Your task to perform on an android device: Clear the cart on target. Search for usb-c on target, select the first entry, add it to the cart, then select checkout. Image 0: 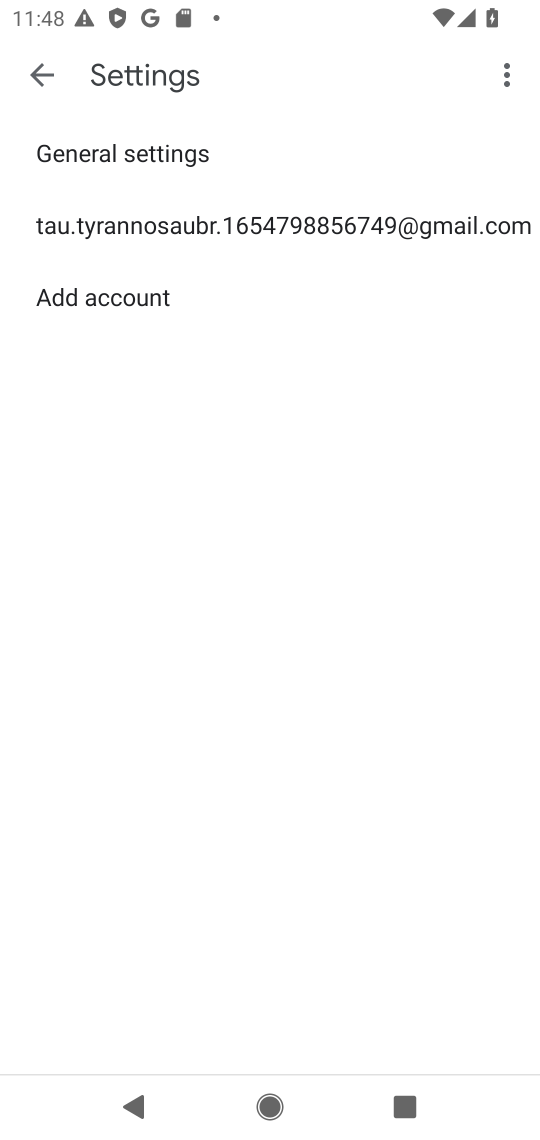
Step 0: press home button
Your task to perform on an android device: Clear the cart on target. Search for usb-c on target, select the first entry, add it to the cart, then select checkout. Image 1: 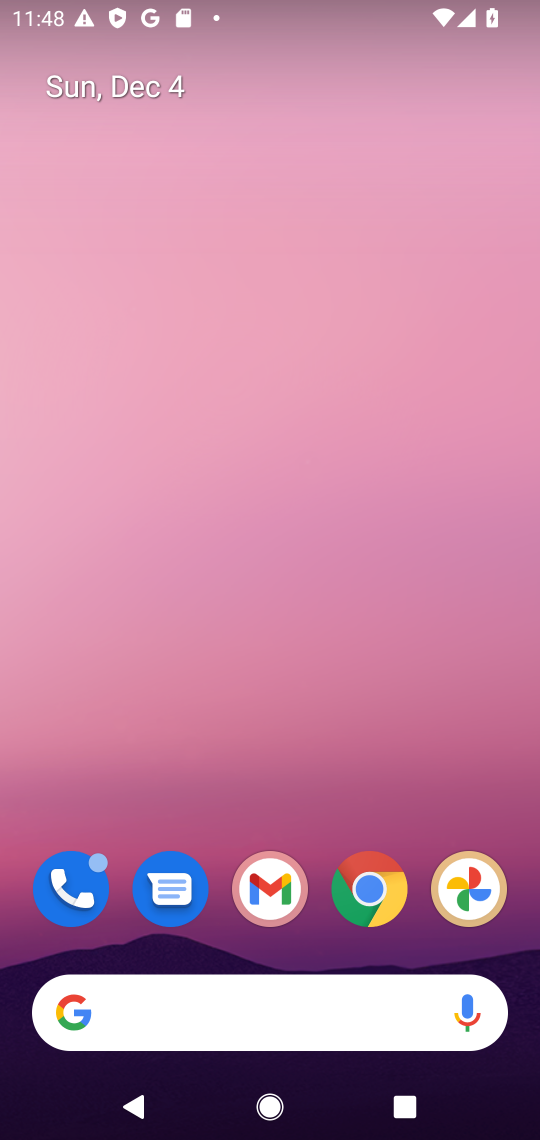
Step 1: click (368, 891)
Your task to perform on an android device: Clear the cart on target. Search for usb-c on target, select the first entry, add it to the cart, then select checkout. Image 2: 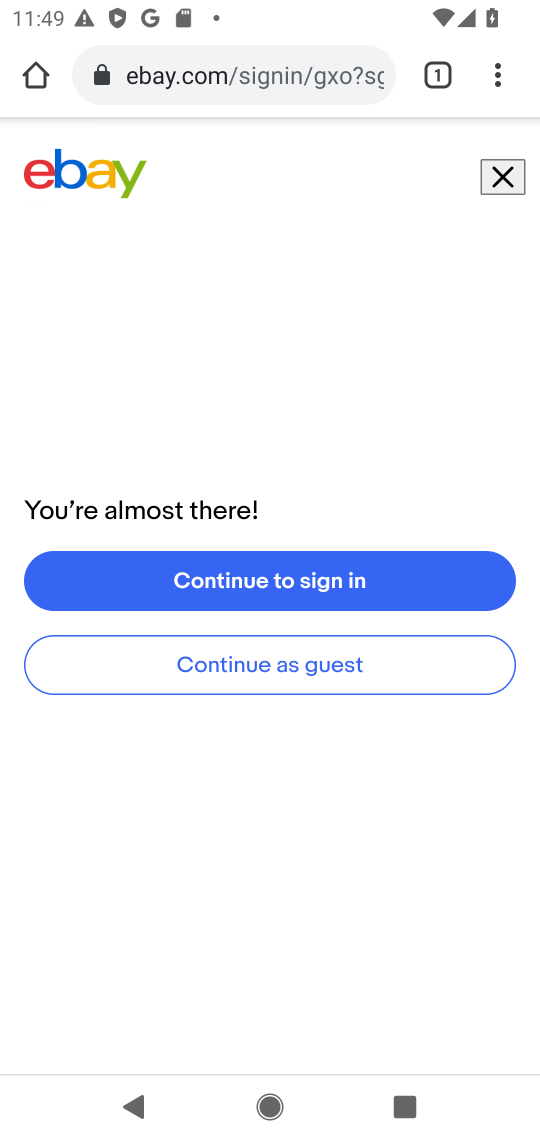
Step 2: click (241, 77)
Your task to perform on an android device: Clear the cart on target. Search for usb-c on target, select the first entry, add it to the cart, then select checkout. Image 3: 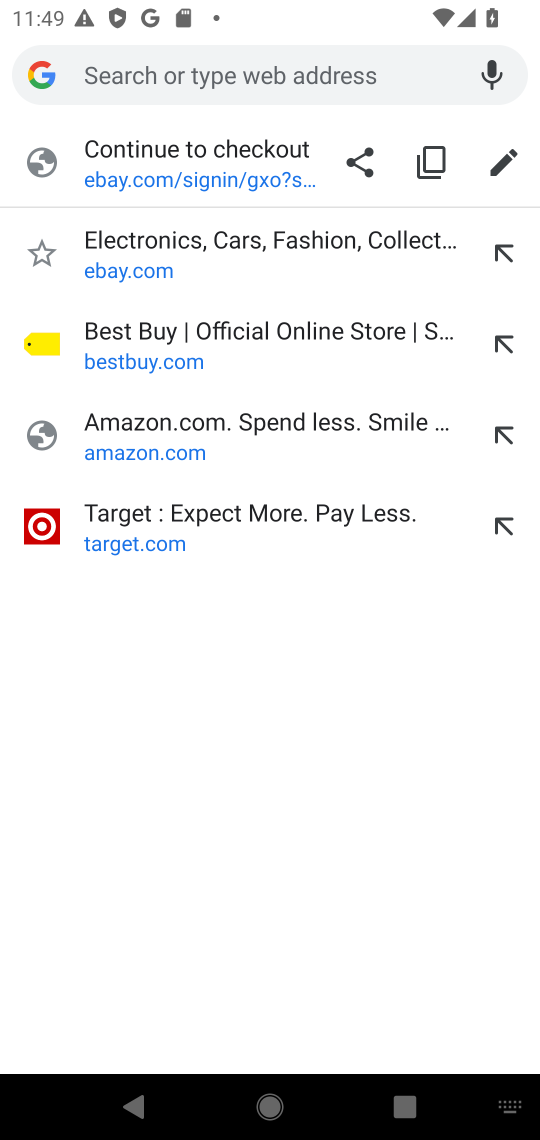
Step 3: click (232, 518)
Your task to perform on an android device: Clear the cart on target. Search for usb-c on target, select the first entry, add it to the cart, then select checkout. Image 4: 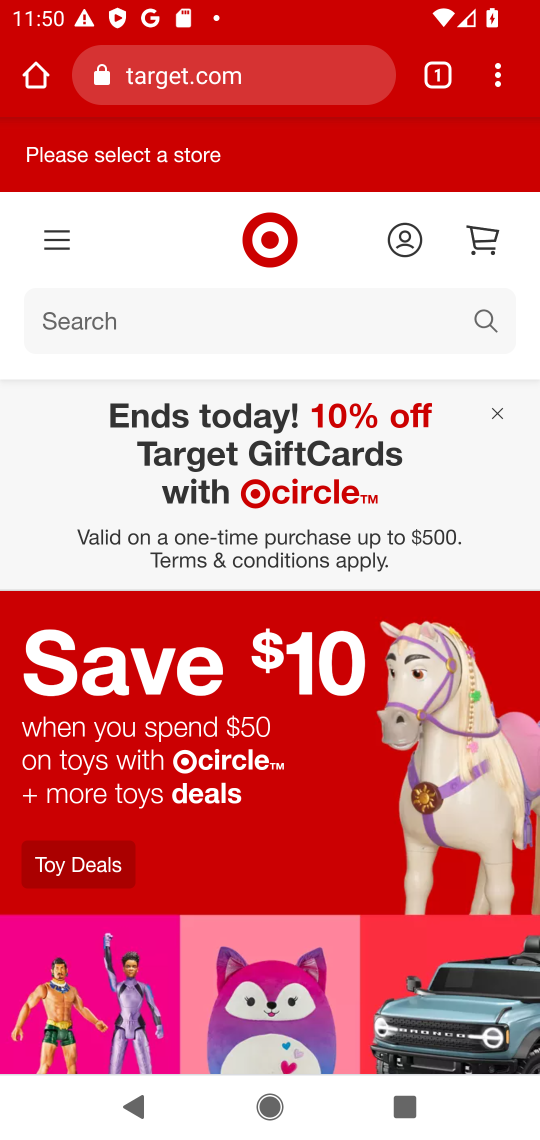
Step 4: click (475, 250)
Your task to perform on an android device: Clear the cart on target. Search for usb-c on target, select the first entry, add it to the cart, then select checkout. Image 5: 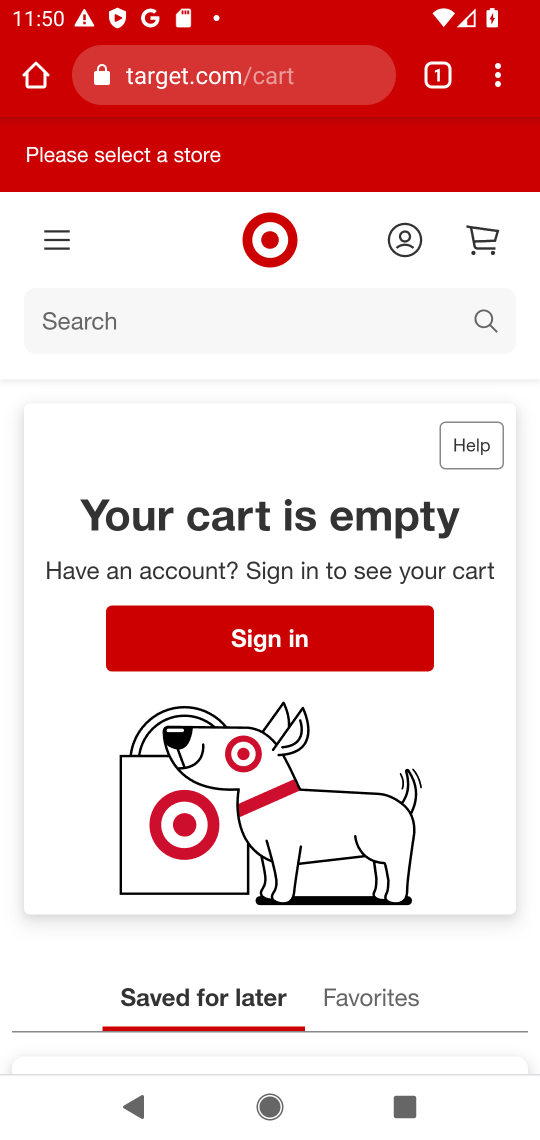
Step 5: click (480, 310)
Your task to perform on an android device: Clear the cart on target. Search for usb-c on target, select the first entry, add it to the cart, then select checkout. Image 6: 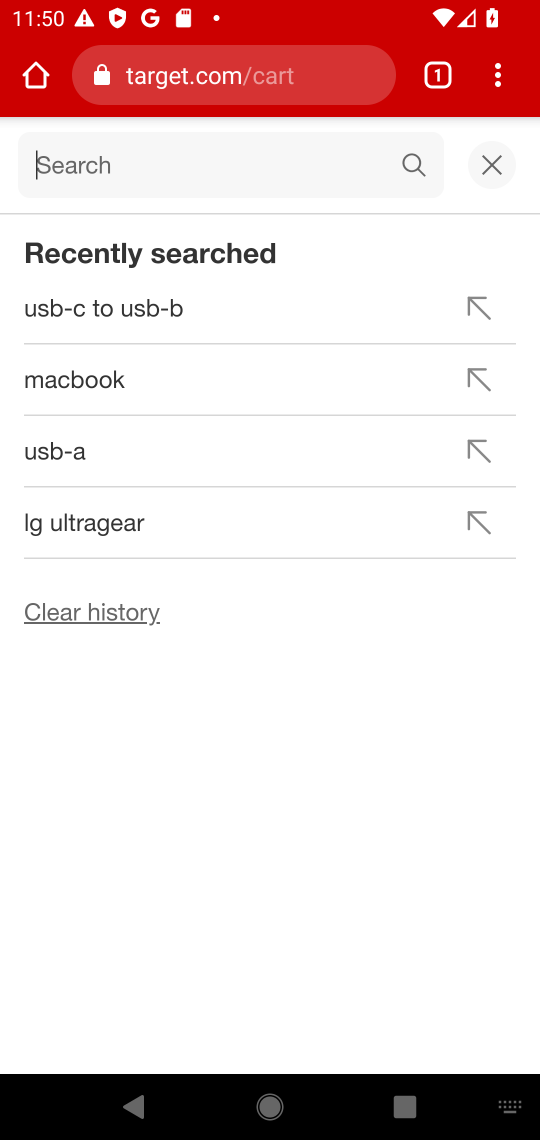
Step 6: type "usb-c"
Your task to perform on an android device: Clear the cart on target. Search for usb-c on target, select the first entry, add it to the cart, then select checkout. Image 7: 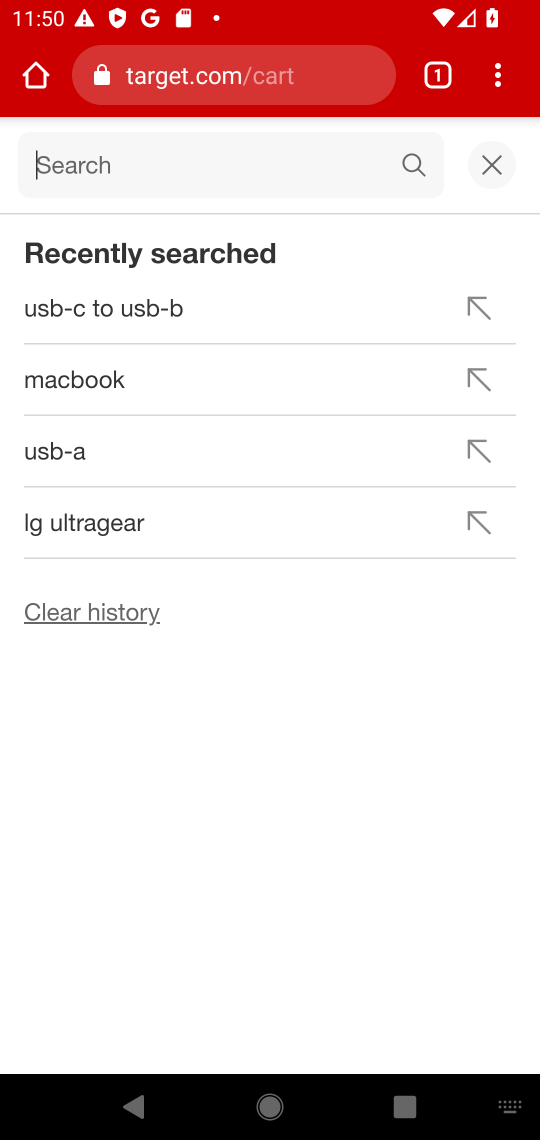
Step 7: press enter
Your task to perform on an android device: Clear the cart on target. Search for usb-c on target, select the first entry, add it to the cart, then select checkout. Image 8: 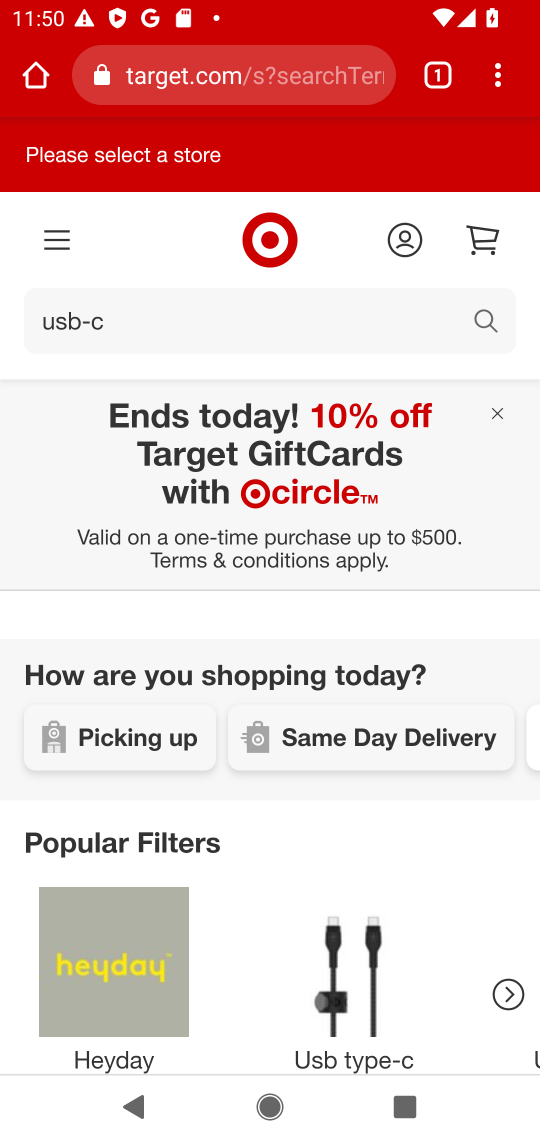
Step 8: drag from (436, 814) to (430, 353)
Your task to perform on an android device: Clear the cart on target. Search for usb-c on target, select the first entry, add it to the cart, then select checkout. Image 9: 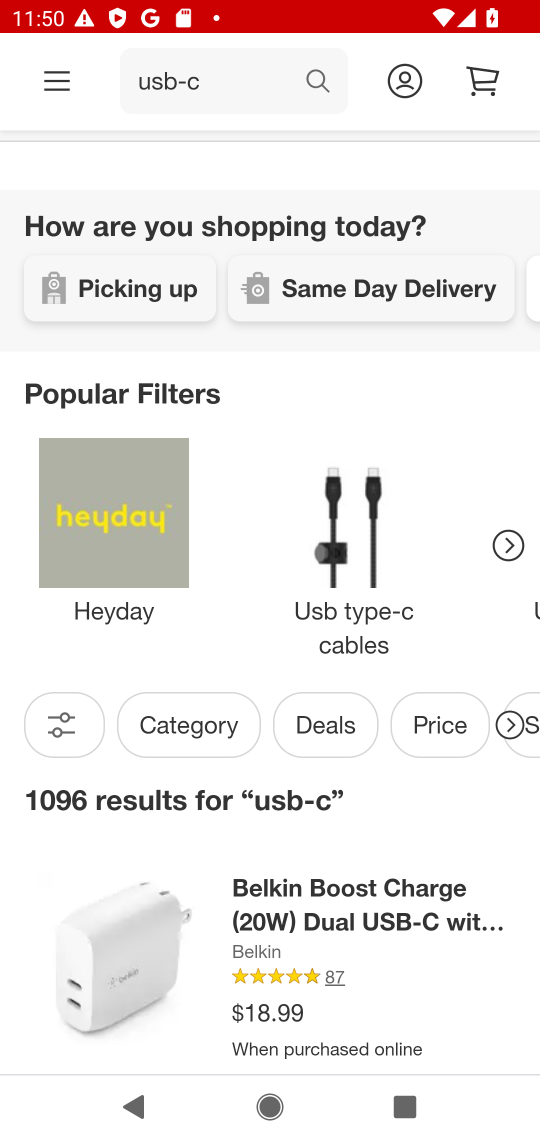
Step 9: drag from (460, 919) to (497, 444)
Your task to perform on an android device: Clear the cart on target. Search for usb-c on target, select the first entry, add it to the cart, then select checkout. Image 10: 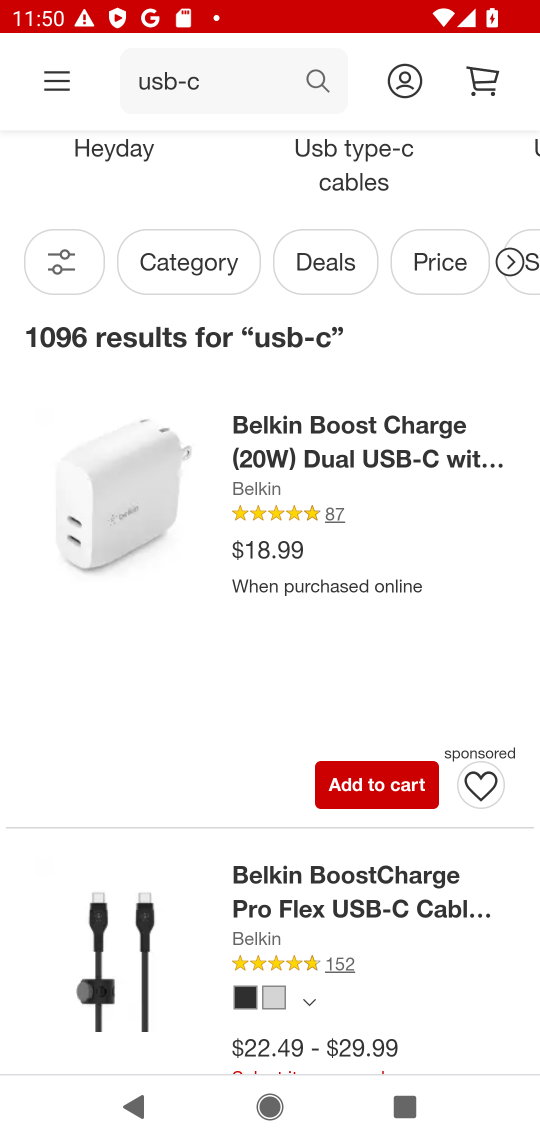
Step 10: click (98, 930)
Your task to perform on an android device: Clear the cart on target. Search for usb-c on target, select the first entry, add it to the cart, then select checkout. Image 11: 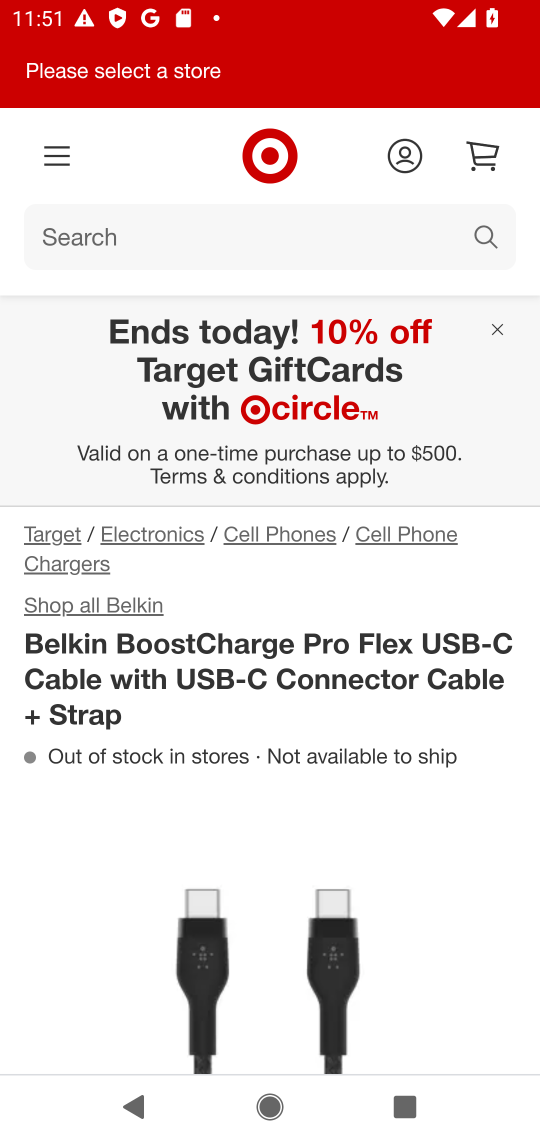
Step 11: drag from (434, 835) to (306, 230)
Your task to perform on an android device: Clear the cart on target. Search for usb-c on target, select the first entry, add it to the cart, then select checkout. Image 12: 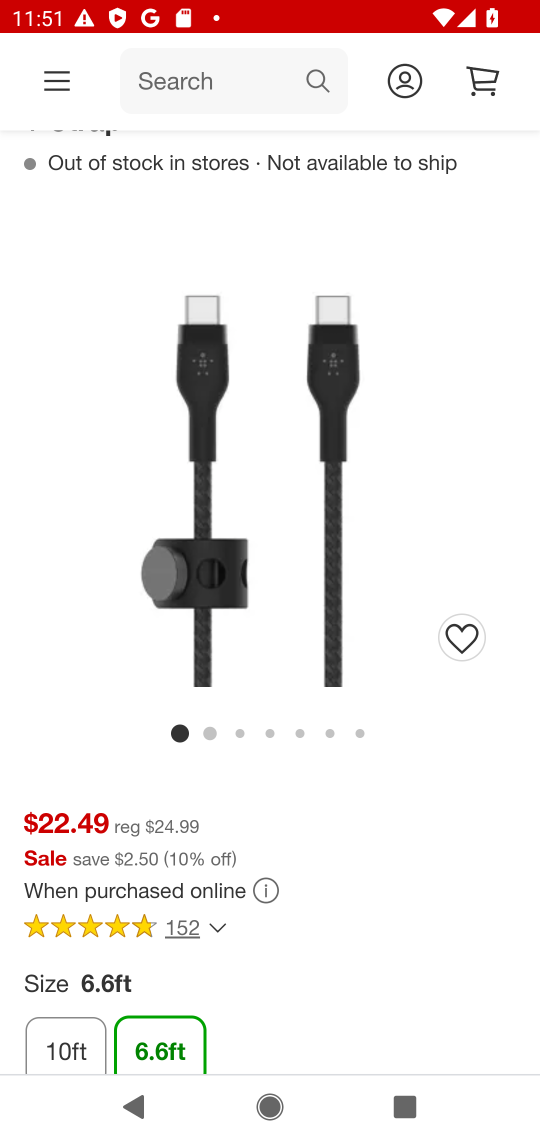
Step 12: drag from (373, 848) to (356, 370)
Your task to perform on an android device: Clear the cart on target. Search for usb-c on target, select the first entry, add it to the cart, then select checkout. Image 13: 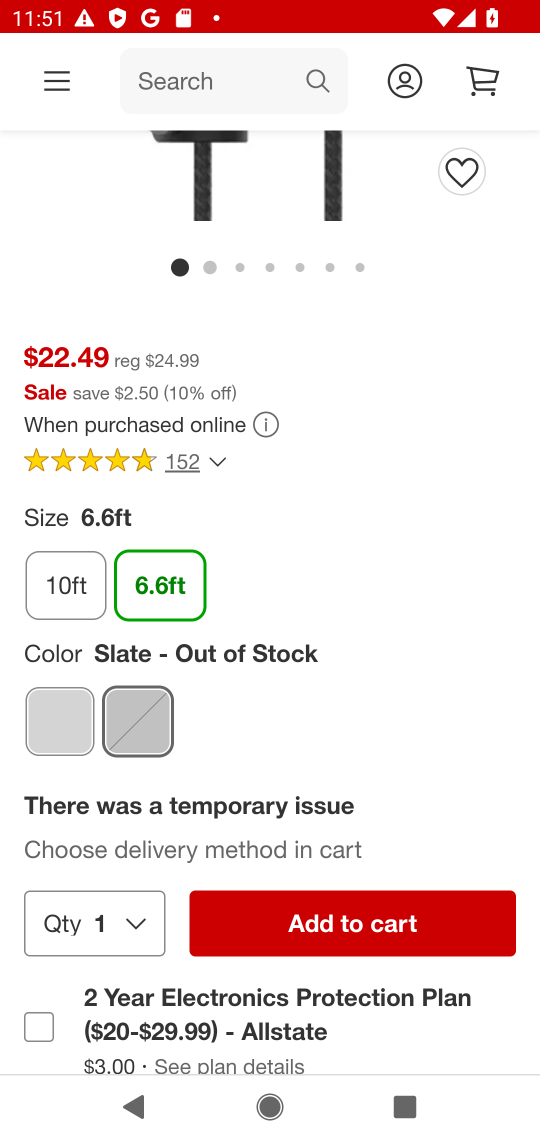
Step 13: click (410, 930)
Your task to perform on an android device: Clear the cart on target. Search for usb-c on target, select the first entry, add it to the cart, then select checkout. Image 14: 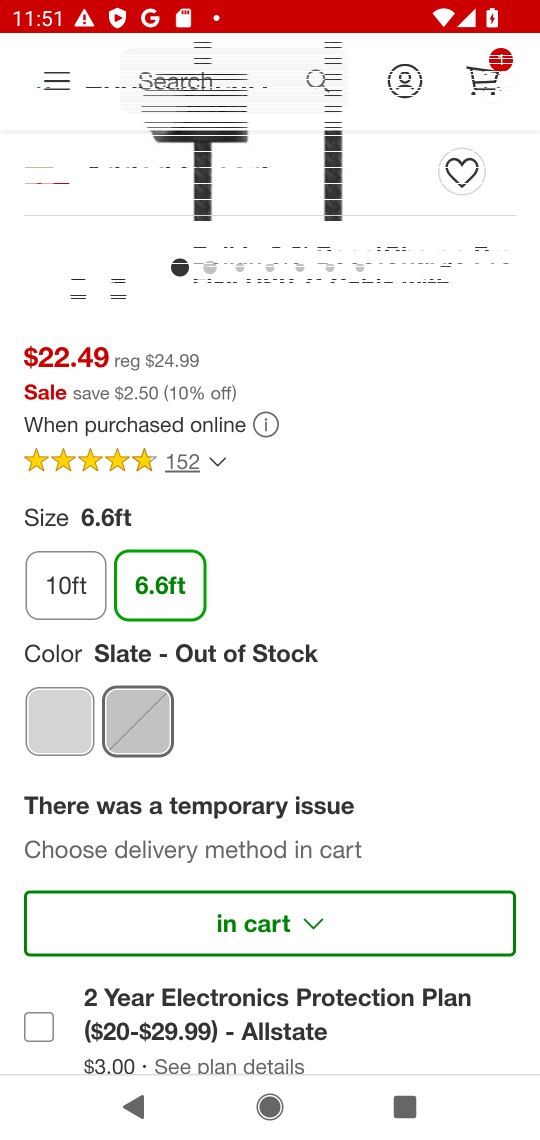
Step 14: drag from (433, 522) to (483, 1075)
Your task to perform on an android device: Clear the cart on target. Search for usb-c on target, select the first entry, add it to the cart, then select checkout. Image 15: 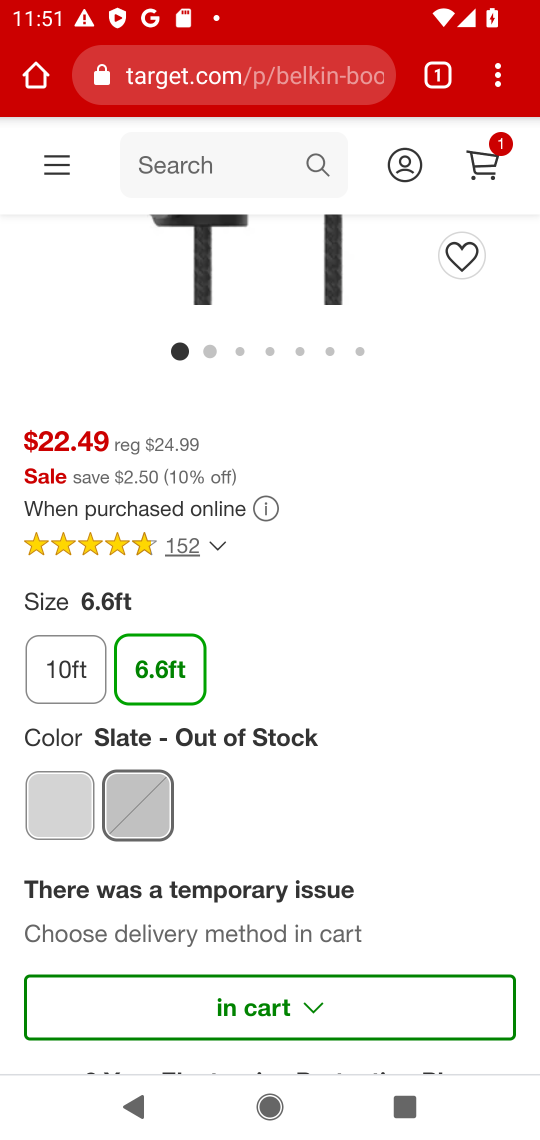
Step 15: click (480, 161)
Your task to perform on an android device: Clear the cart on target. Search for usb-c on target, select the first entry, add it to the cart, then select checkout. Image 16: 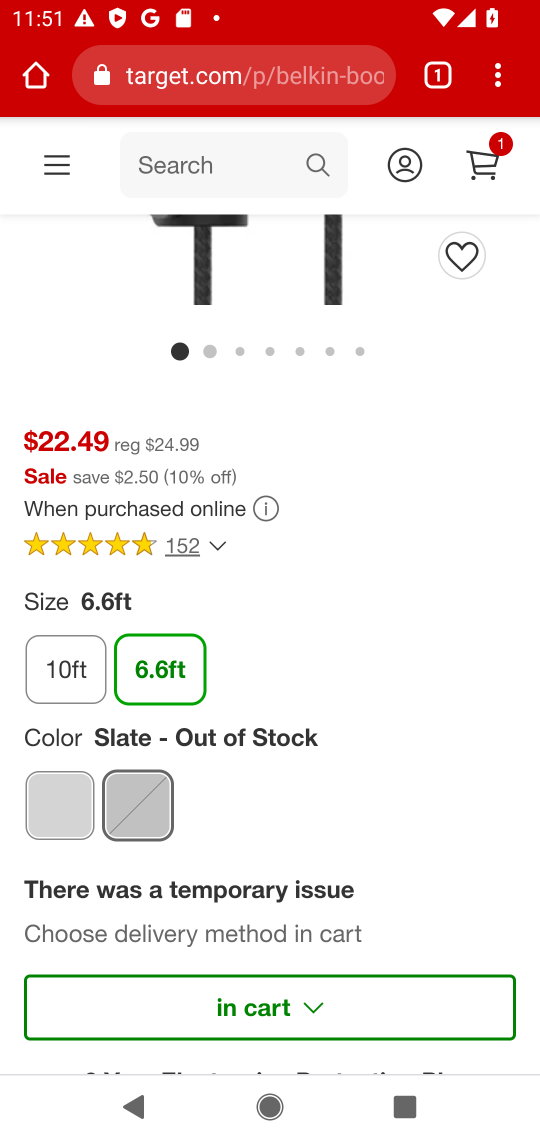
Step 16: click (482, 159)
Your task to perform on an android device: Clear the cart on target. Search for usb-c on target, select the first entry, add it to the cart, then select checkout. Image 17: 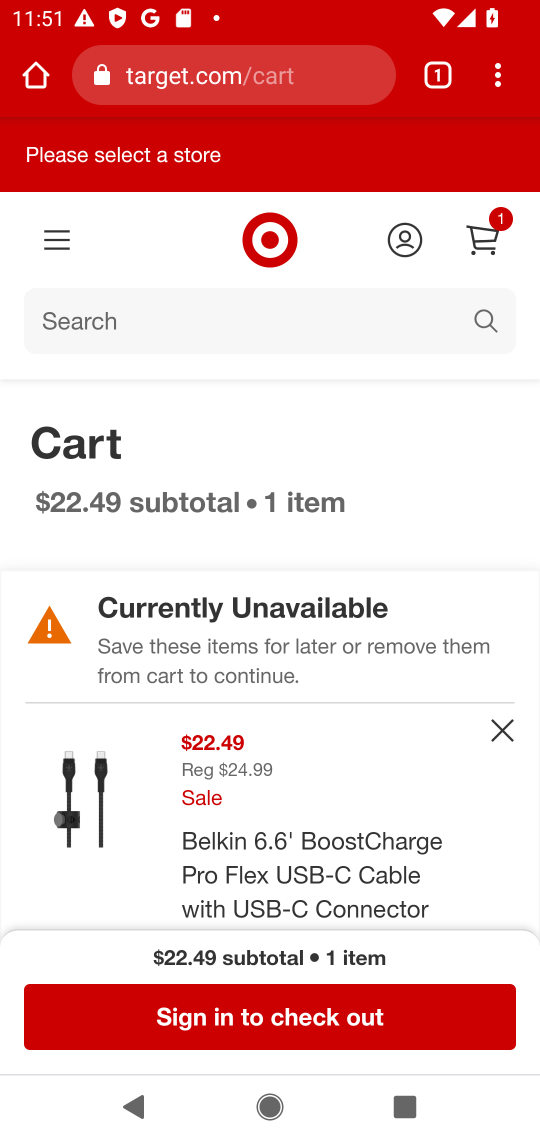
Step 17: click (325, 1025)
Your task to perform on an android device: Clear the cart on target. Search for usb-c on target, select the first entry, add it to the cart, then select checkout. Image 18: 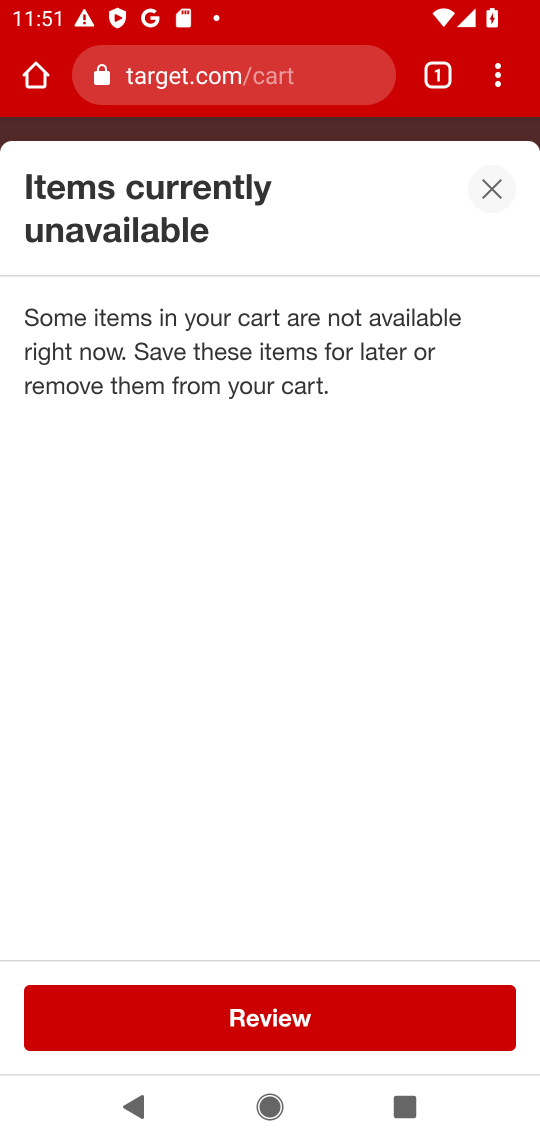
Step 18: press back button
Your task to perform on an android device: Clear the cart on target. Search for usb-c on target, select the first entry, add it to the cart, then select checkout. Image 19: 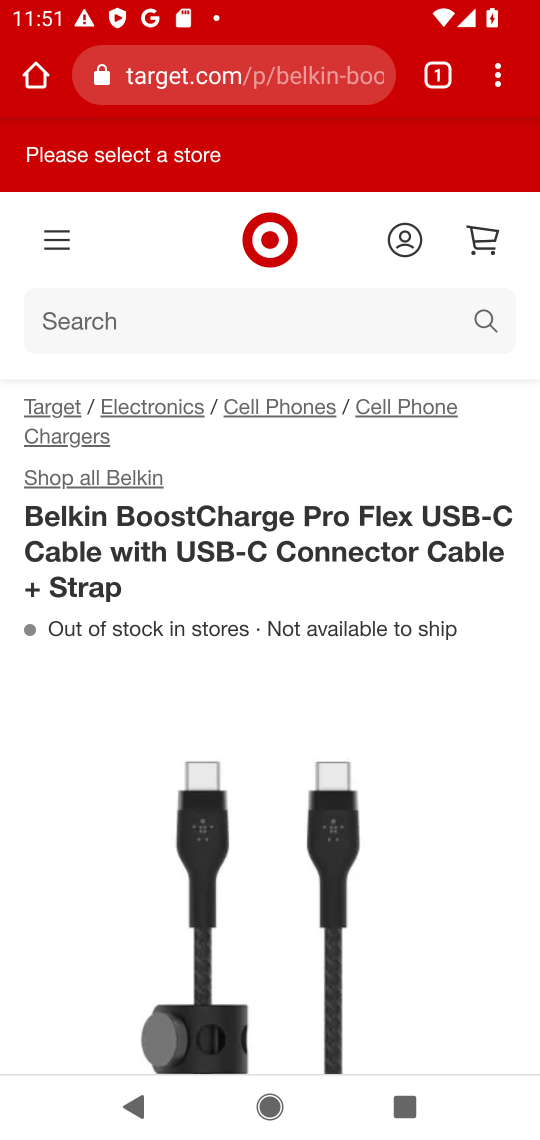
Step 19: press back button
Your task to perform on an android device: Clear the cart on target. Search for usb-c on target, select the first entry, add it to the cart, then select checkout. Image 20: 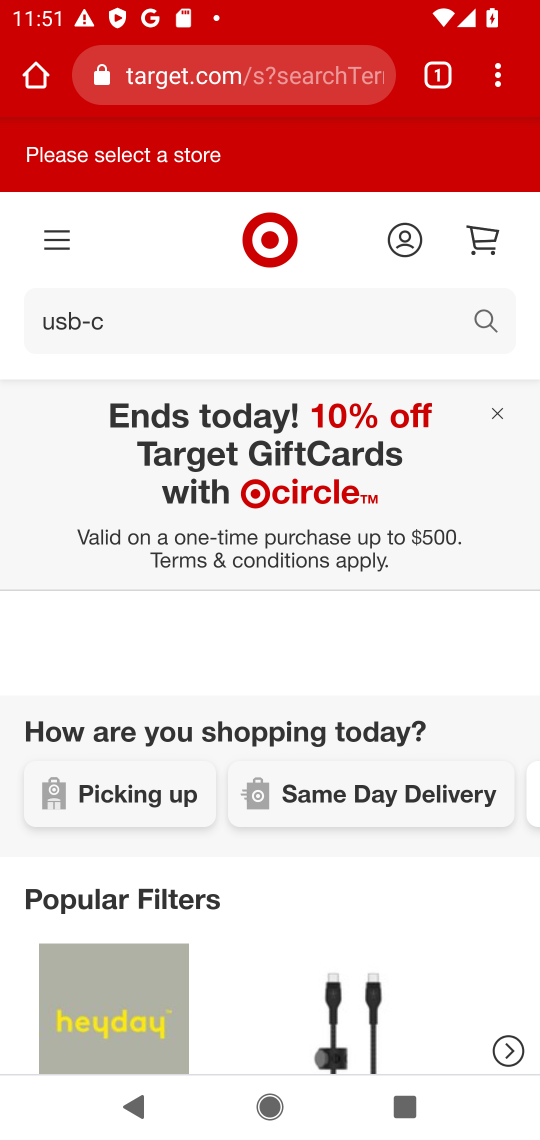
Step 20: drag from (440, 701) to (438, 221)
Your task to perform on an android device: Clear the cart on target. Search for usb-c on target, select the first entry, add it to the cart, then select checkout. Image 21: 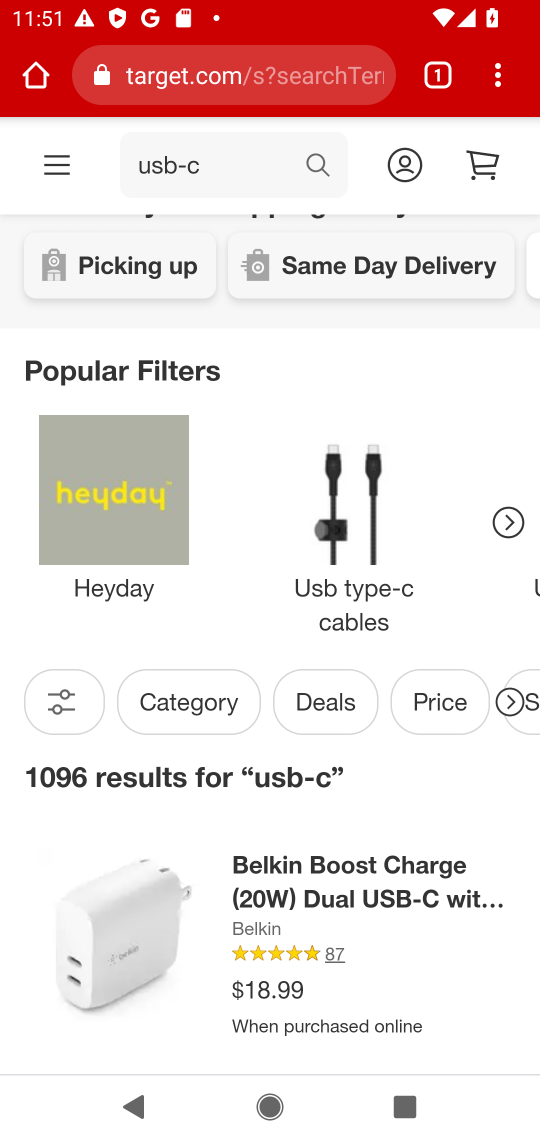
Step 21: drag from (440, 897) to (451, 234)
Your task to perform on an android device: Clear the cart on target. Search for usb-c on target, select the first entry, add it to the cart, then select checkout. Image 22: 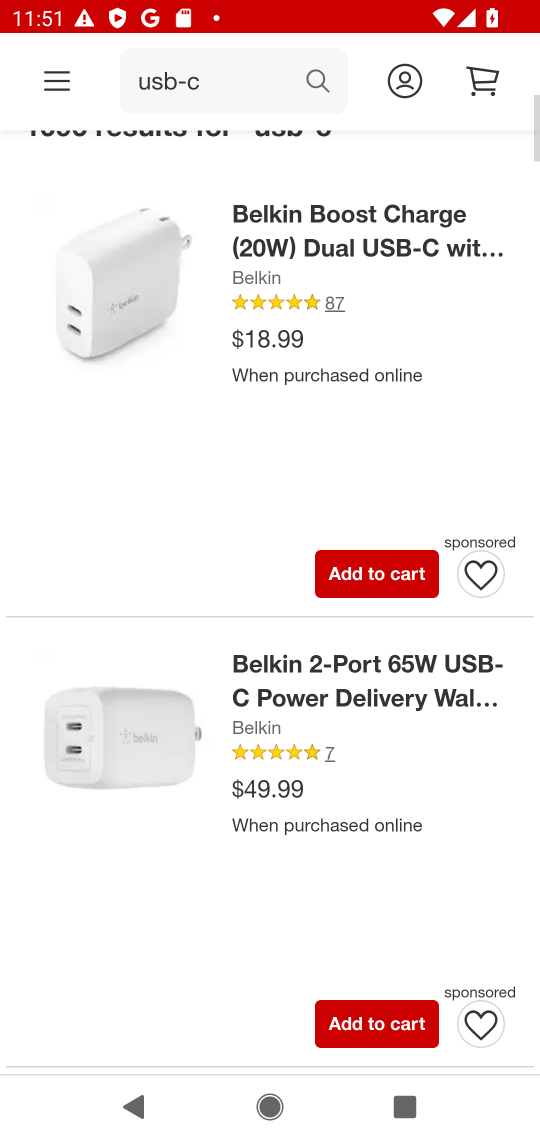
Step 22: drag from (501, 778) to (474, 289)
Your task to perform on an android device: Clear the cart on target. Search for usb-c on target, select the first entry, add it to the cart, then select checkout. Image 23: 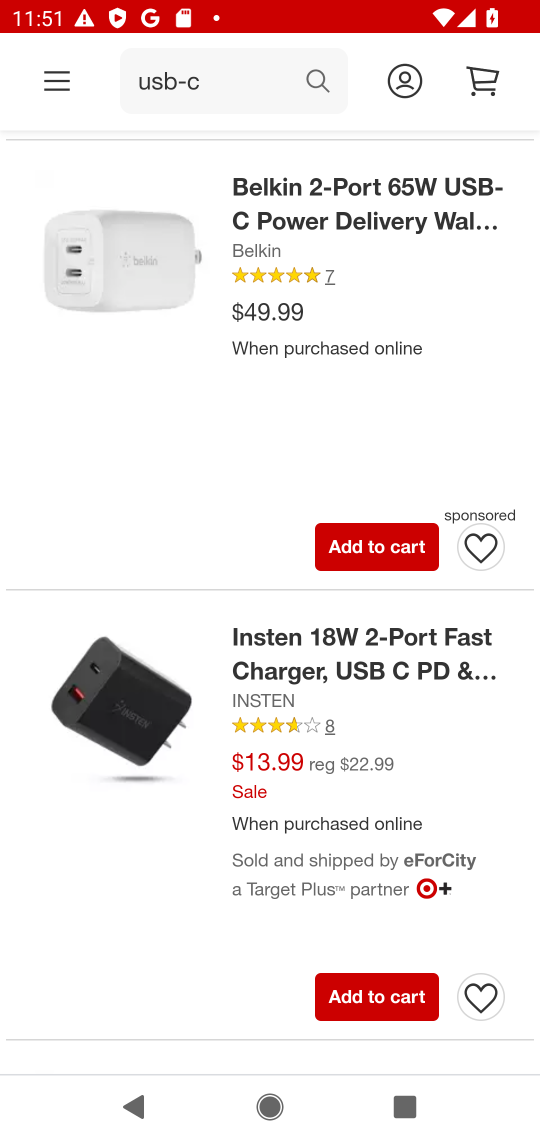
Step 23: drag from (405, 679) to (459, 296)
Your task to perform on an android device: Clear the cart on target. Search for usb-c on target, select the first entry, add it to the cart, then select checkout. Image 24: 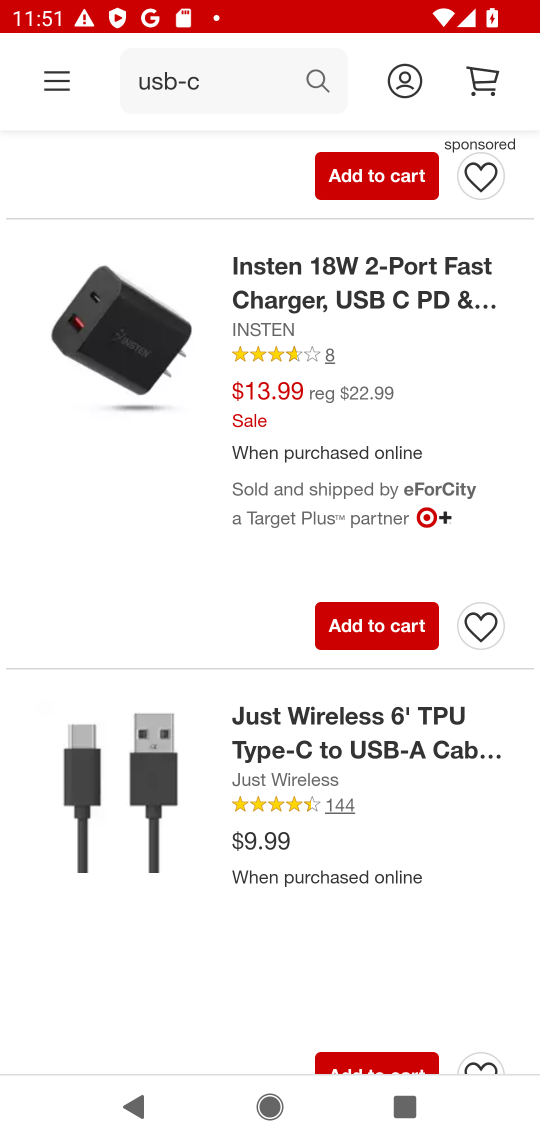
Step 24: drag from (453, 848) to (369, 198)
Your task to perform on an android device: Clear the cart on target. Search for usb-c on target, select the first entry, add it to the cart, then select checkout. Image 25: 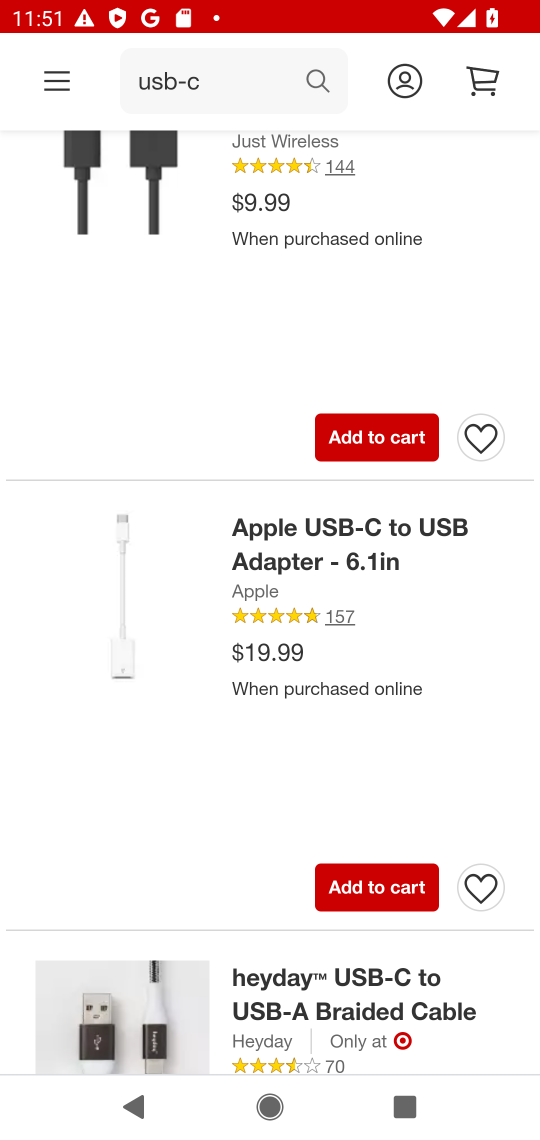
Step 25: click (128, 578)
Your task to perform on an android device: Clear the cart on target. Search for usb-c on target, select the first entry, add it to the cart, then select checkout. Image 26: 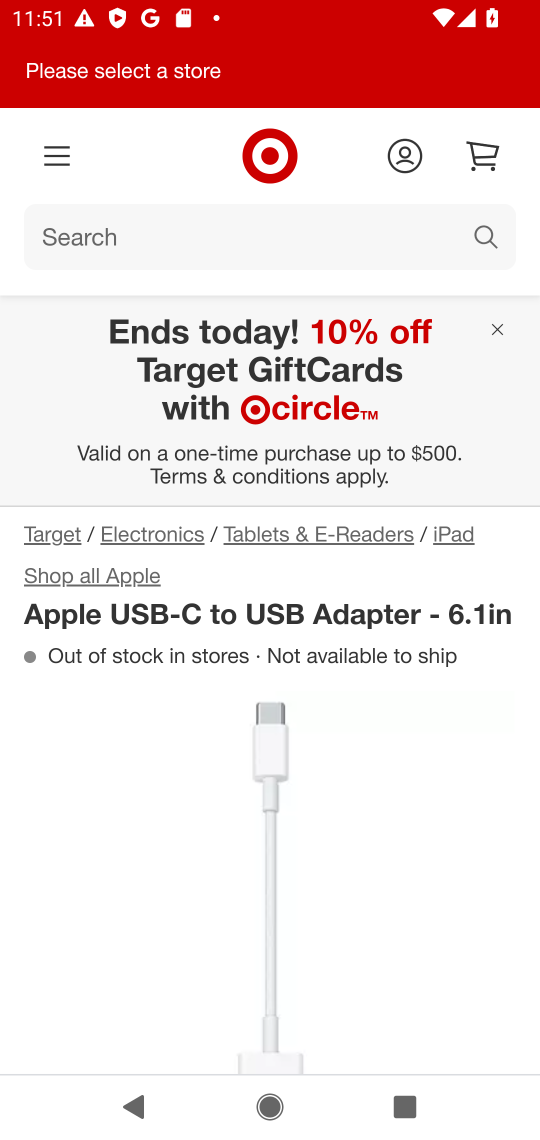
Step 26: drag from (479, 776) to (528, 830)
Your task to perform on an android device: Clear the cart on target. Search for usb-c on target, select the first entry, add it to the cart, then select checkout. Image 27: 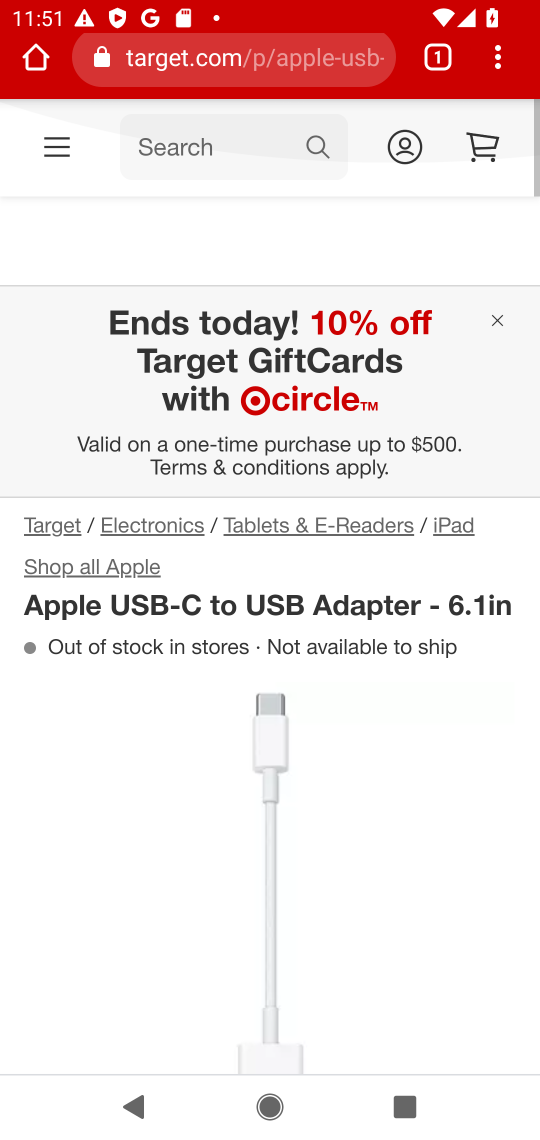
Step 27: drag from (474, 920) to (477, 329)
Your task to perform on an android device: Clear the cart on target. Search for usb-c on target, select the first entry, add it to the cart, then select checkout. Image 28: 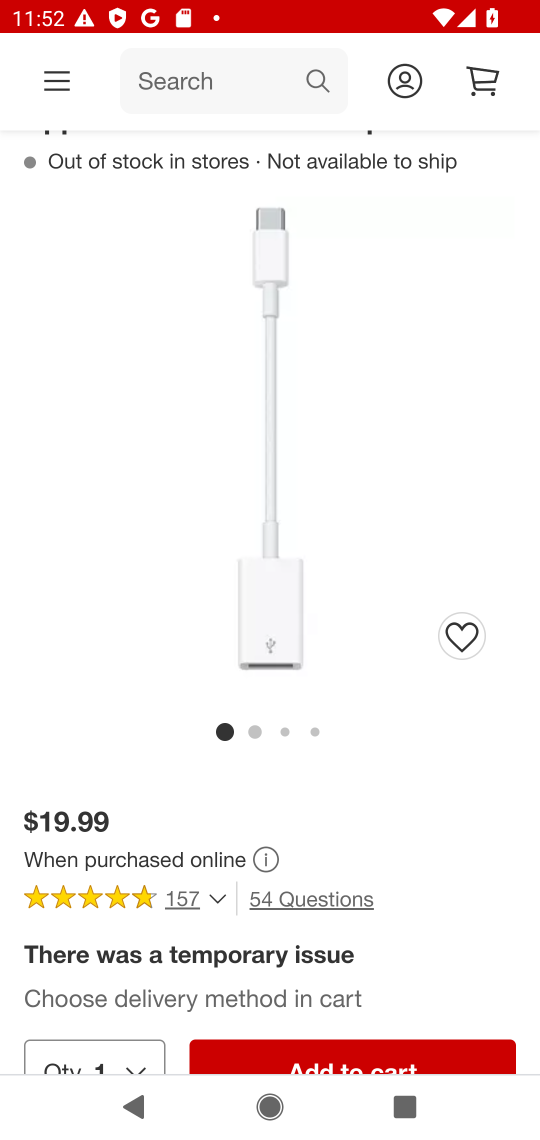
Step 28: drag from (454, 780) to (469, 506)
Your task to perform on an android device: Clear the cart on target. Search for usb-c on target, select the first entry, add it to the cart, then select checkout. Image 29: 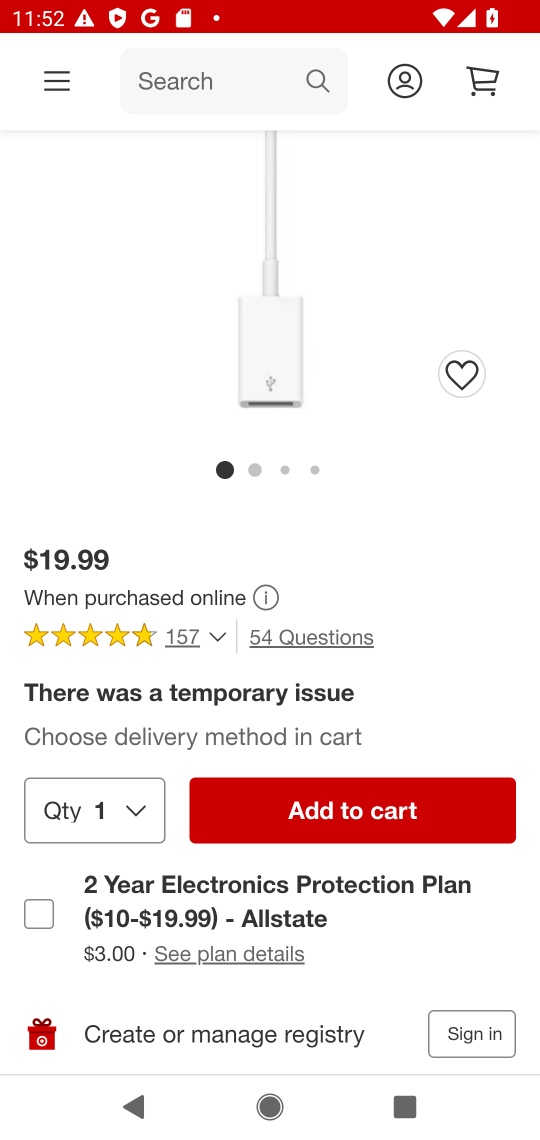
Step 29: click (373, 815)
Your task to perform on an android device: Clear the cart on target. Search for usb-c on target, select the first entry, add it to the cart, then select checkout. Image 30: 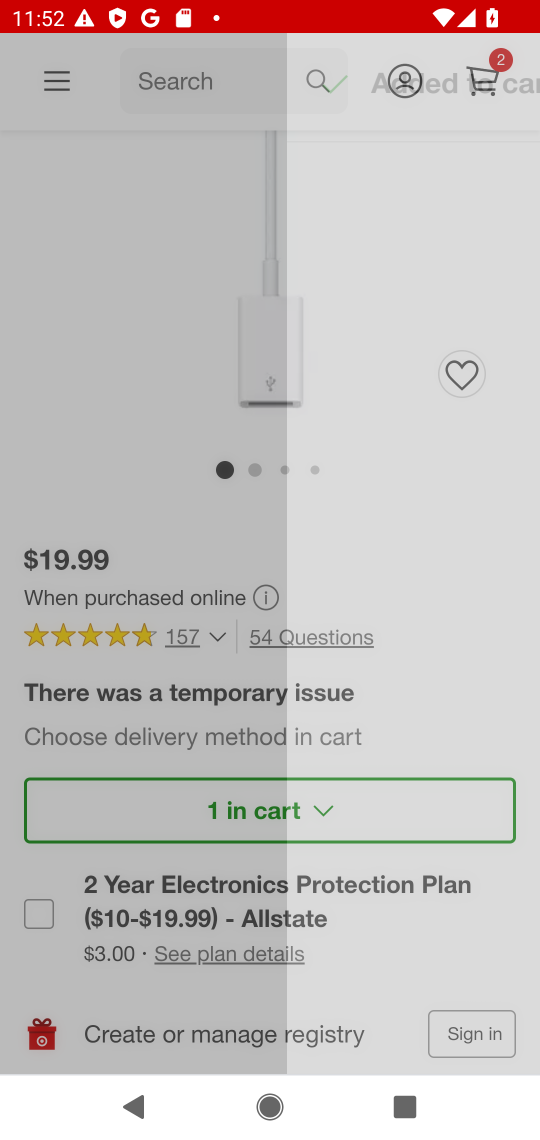
Step 30: click (478, 75)
Your task to perform on an android device: Clear the cart on target. Search for usb-c on target, select the first entry, add it to the cart, then select checkout. Image 31: 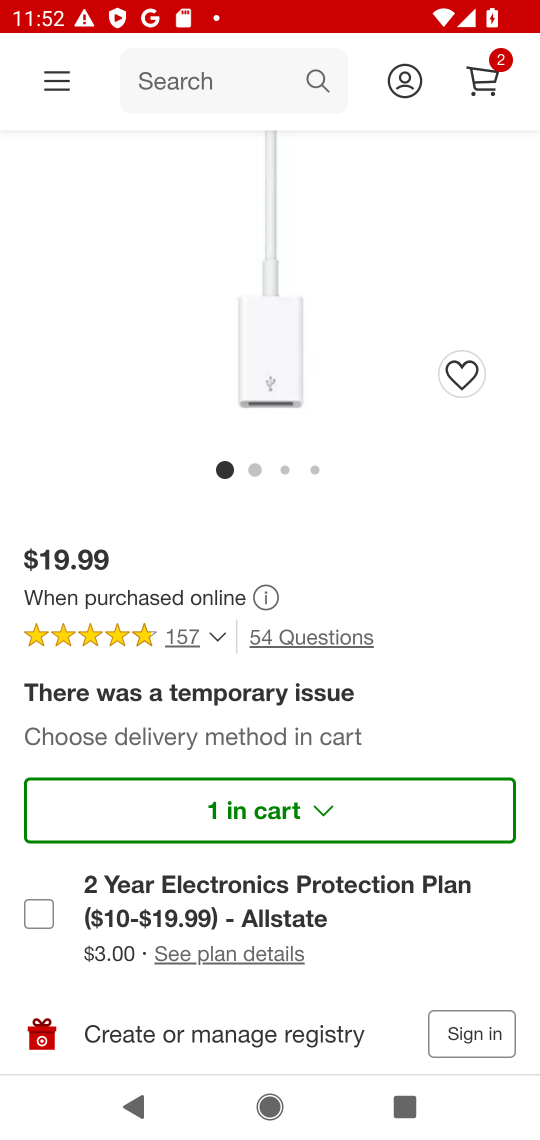
Step 31: drag from (415, 702) to (444, 173)
Your task to perform on an android device: Clear the cart on target. Search for usb-c on target, select the first entry, add it to the cart, then select checkout. Image 32: 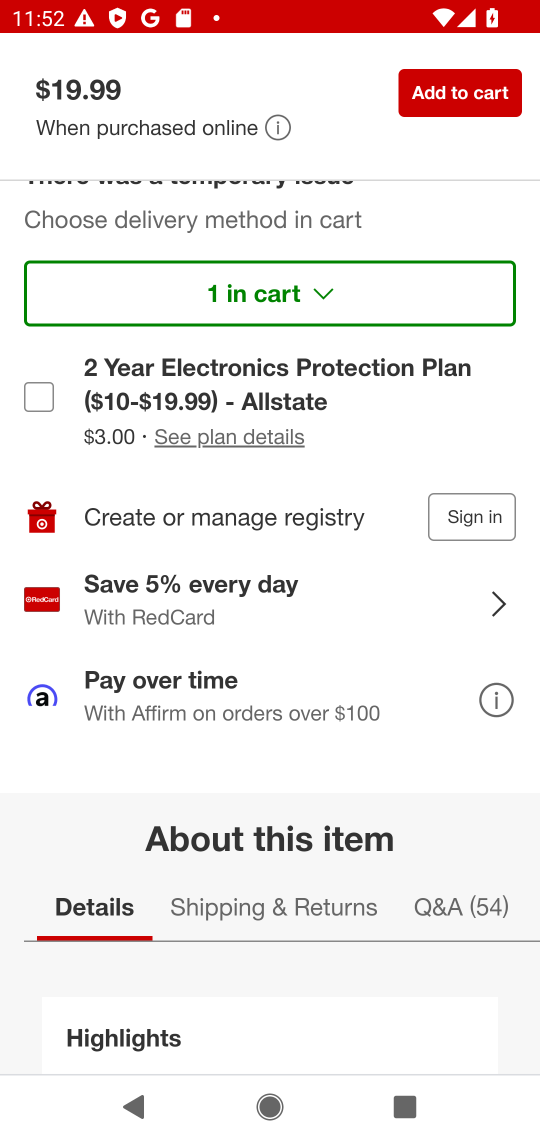
Step 32: drag from (450, 781) to (369, 1040)
Your task to perform on an android device: Clear the cart on target. Search for usb-c on target, select the first entry, add it to the cart, then select checkout. Image 33: 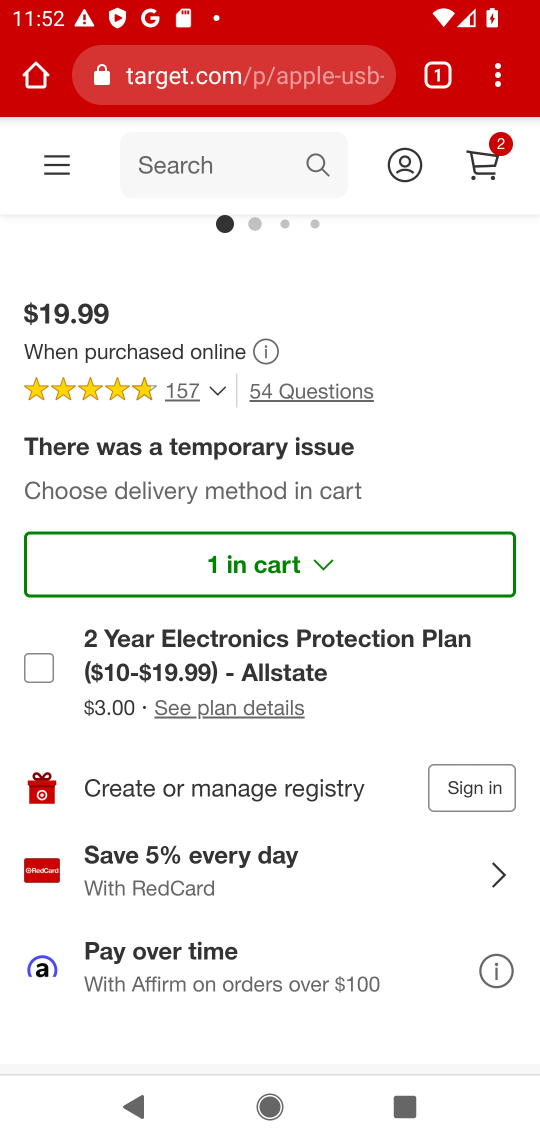
Step 33: click (485, 162)
Your task to perform on an android device: Clear the cart on target. Search for usb-c on target, select the first entry, add it to the cart, then select checkout. Image 34: 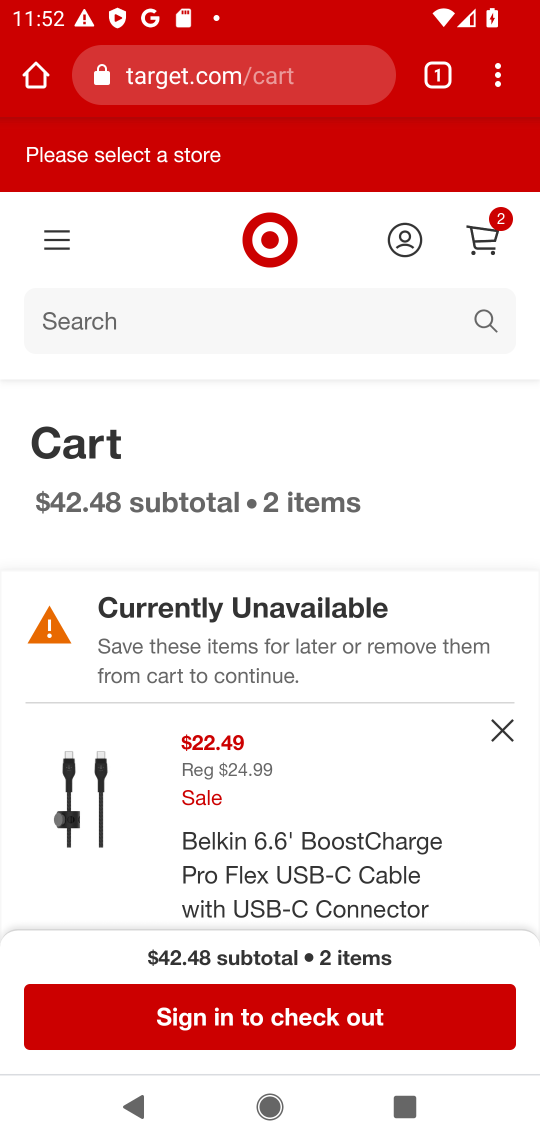
Step 34: drag from (454, 595) to (479, 213)
Your task to perform on an android device: Clear the cart on target. Search for usb-c on target, select the first entry, add it to the cart, then select checkout. Image 35: 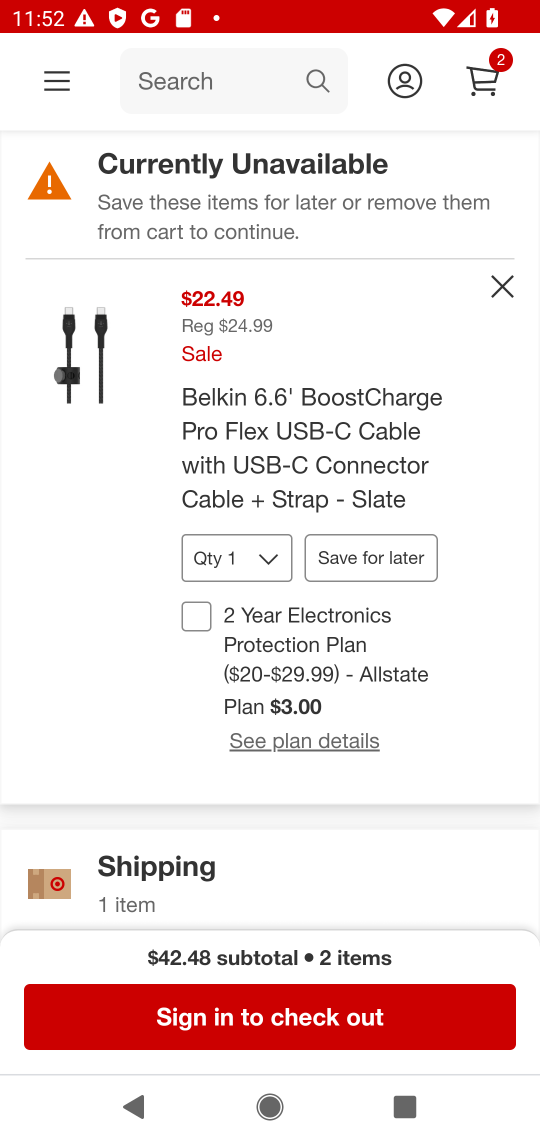
Step 35: drag from (498, 450) to (463, 202)
Your task to perform on an android device: Clear the cart on target. Search for usb-c on target, select the first entry, add it to the cart, then select checkout. Image 36: 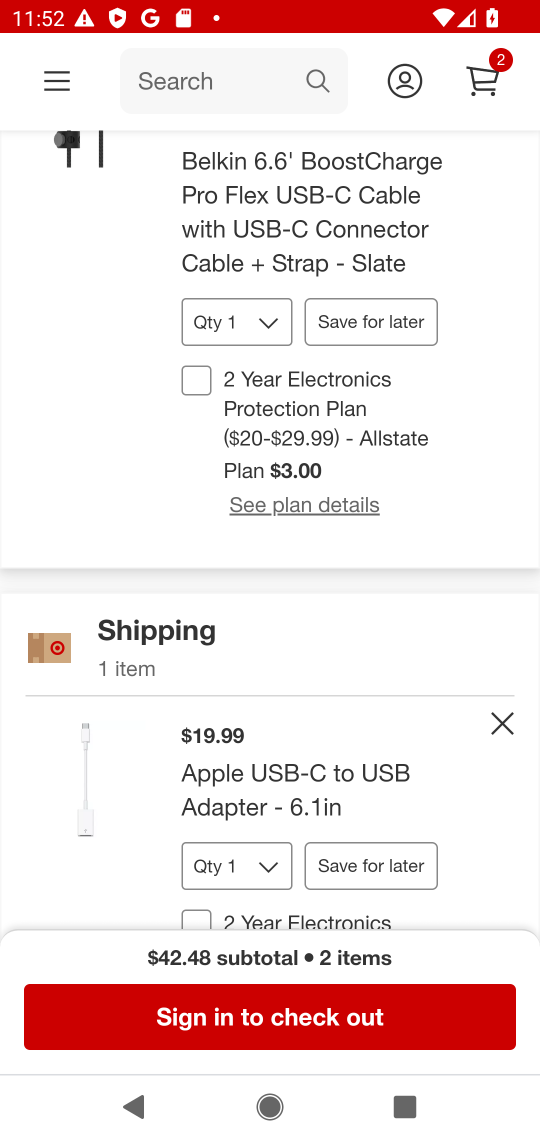
Step 36: click (477, 458)
Your task to perform on an android device: Clear the cart on target. Search for usb-c on target, select the first entry, add it to the cart, then select checkout. Image 37: 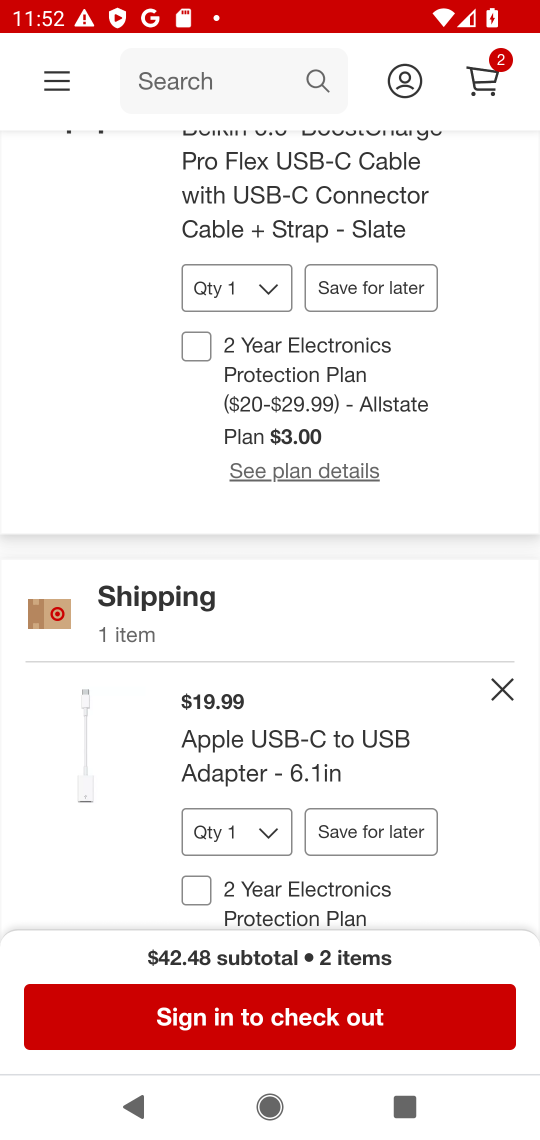
Step 37: click (364, 1012)
Your task to perform on an android device: Clear the cart on target. Search for usb-c on target, select the first entry, add it to the cart, then select checkout. Image 38: 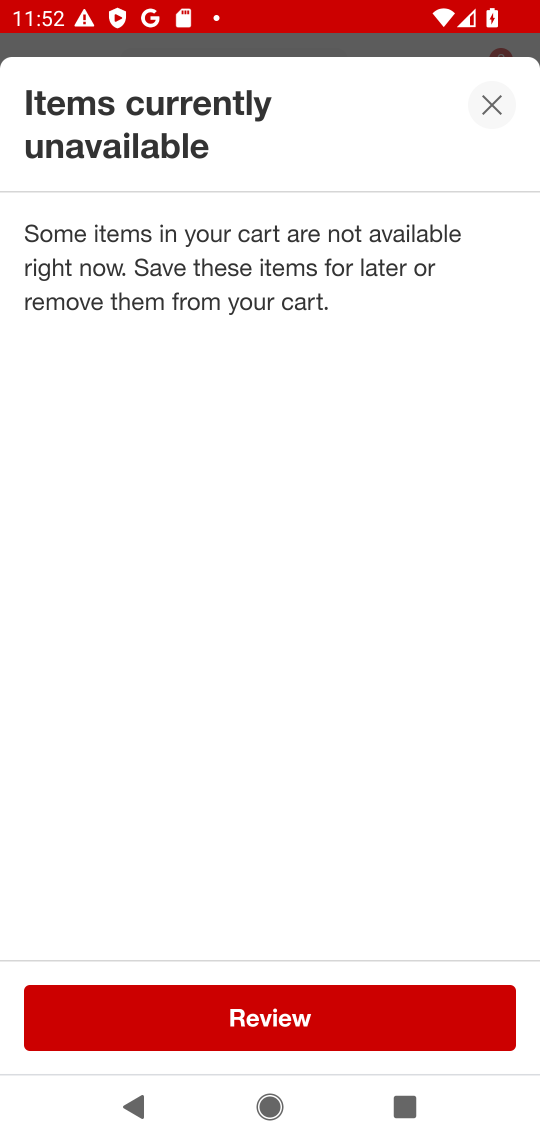
Step 38: task complete